Your task to perform on an android device: Search for Mexican restaurants on Maps Image 0: 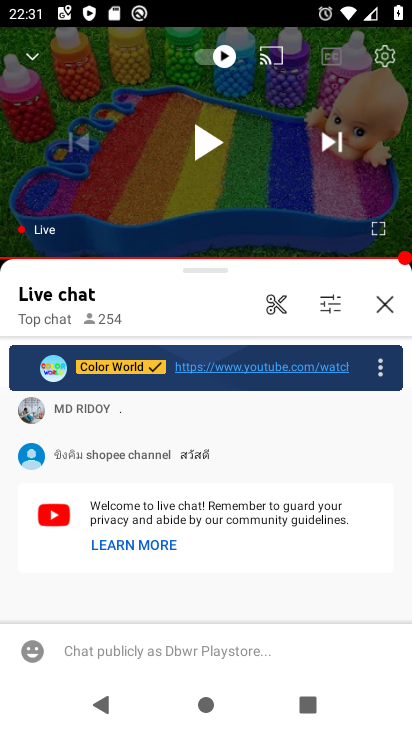
Step 0: press home button
Your task to perform on an android device: Search for Mexican restaurants on Maps Image 1: 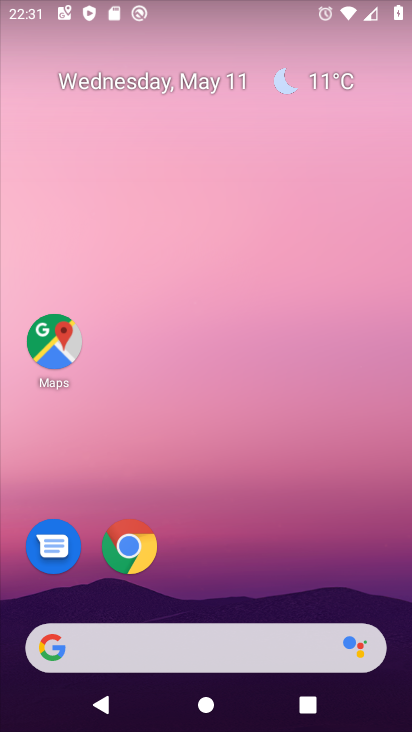
Step 1: click (54, 340)
Your task to perform on an android device: Search for Mexican restaurants on Maps Image 2: 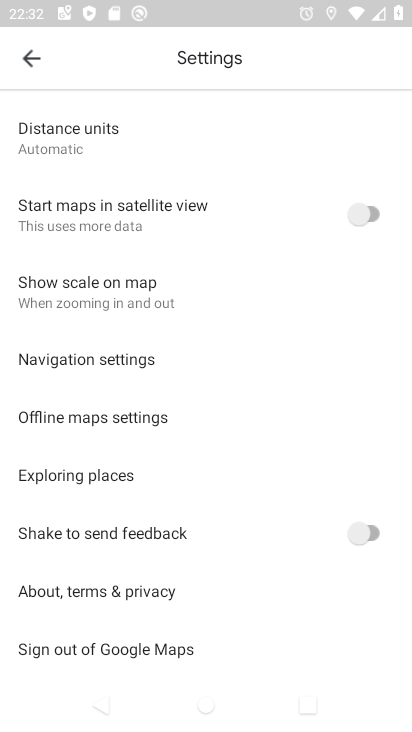
Step 2: press back button
Your task to perform on an android device: Search for Mexican restaurants on Maps Image 3: 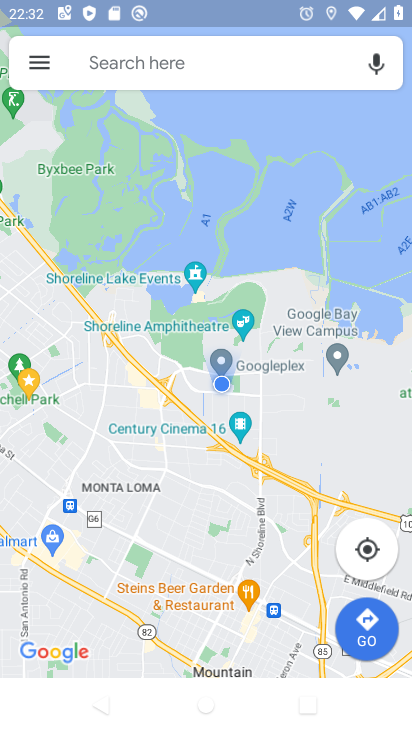
Step 3: click (141, 58)
Your task to perform on an android device: Search for Mexican restaurants on Maps Image 4: 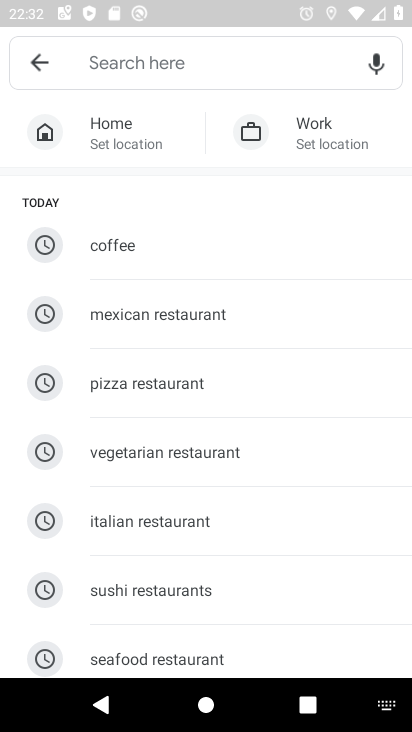
Step 4: type "mexican restaurants"
Your task to perform on an android device: Search for Mexican restaurants on Maps Image 5: 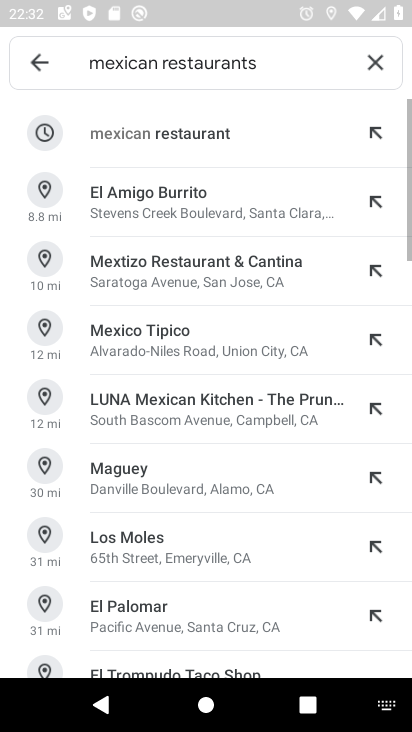
Step 5: click (128, 131)
Your task to perform on an android device: Search for Mexican restaurants on Maps Image 6: 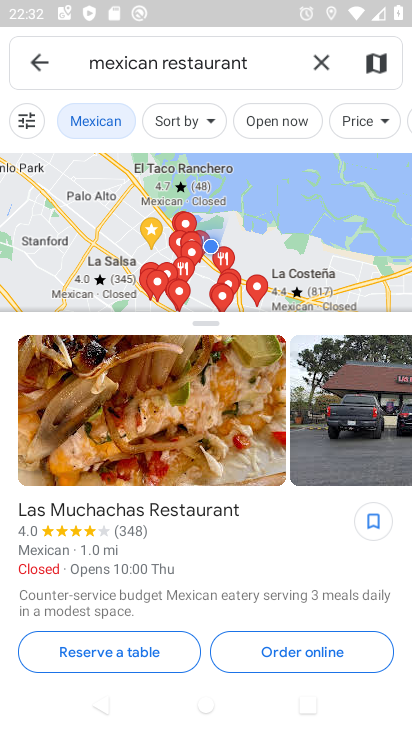
Step 6: task complete